Your task to perform on an android device: What is the recent news? Image 0: 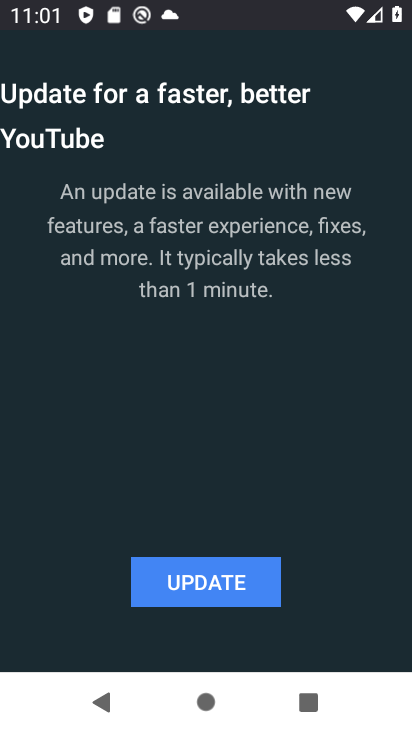
Step 0: press home button
Your task to perform on an android device: What is the recent news? Image 1: 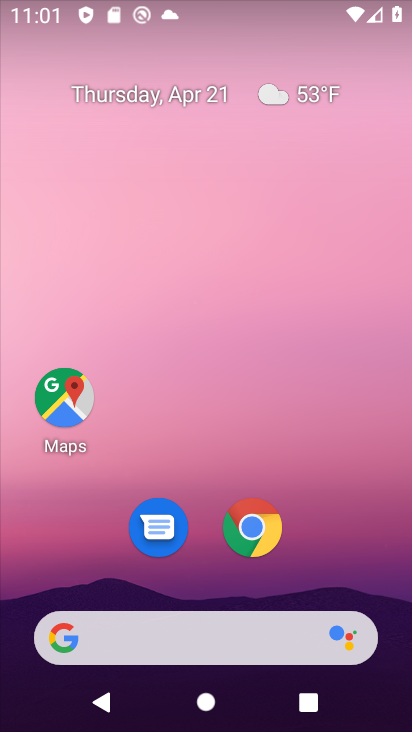
Step 1: task complete